Your task to perform on an android device: empty trash in google photos Image 0: 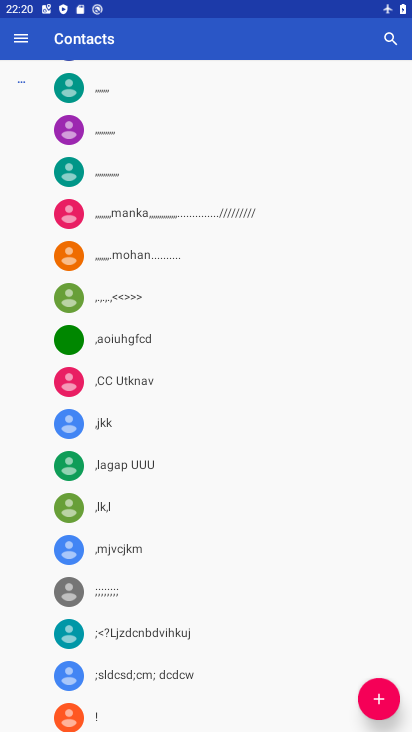
Step 0: press home button
Your task to perform on an android device: empty trash in google photos Image 1: 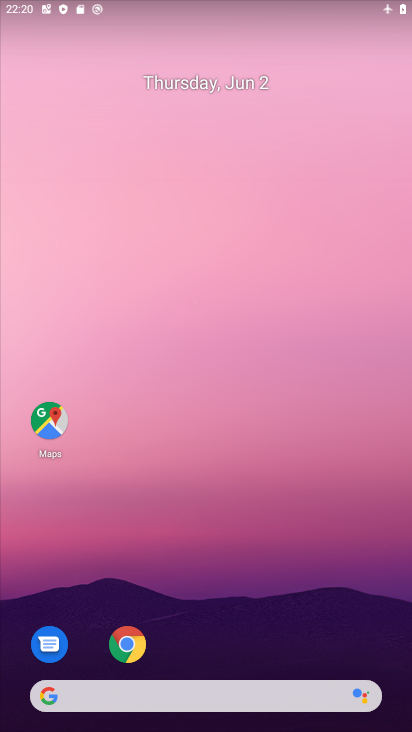
Step 1: drag from (220, 626) to (193, 129)
Your task to perform on an android device: empty trash in google photos Image 2: 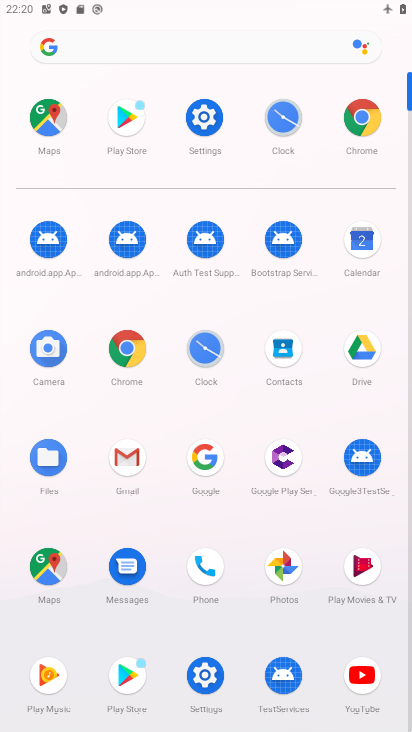
Step 2: click (286, 564)
Your task to perform on an android device: empty trash in google photos Image 3: 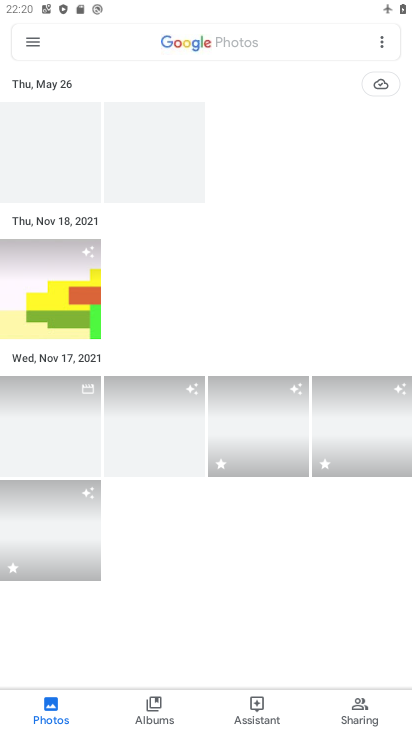
Step 3: click (34, 44)
Your task to perform on an android device: empty trash in google photos Image 4: 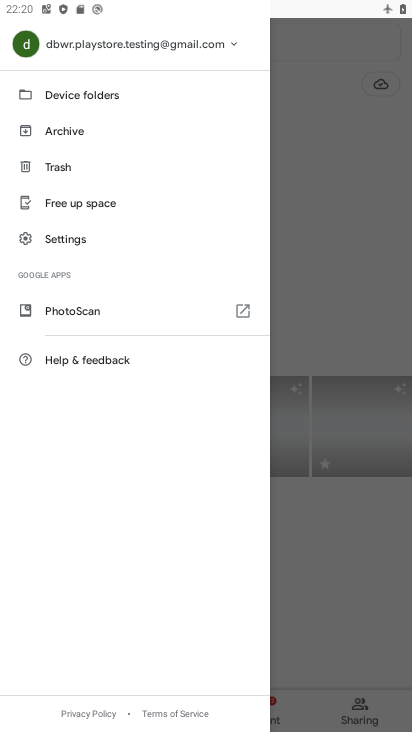
Step 4: click (64, 171)
Your task to perform on an android device: empty trash in google photos Image 5: 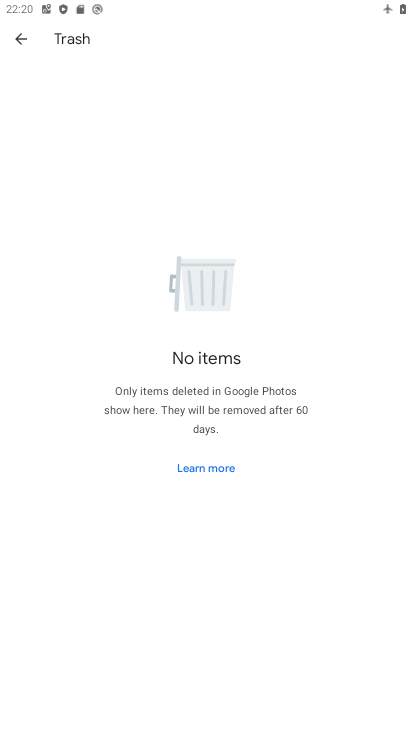
Step 5: task complete